Your task to perform on an android device: open wifi settings Image 0: 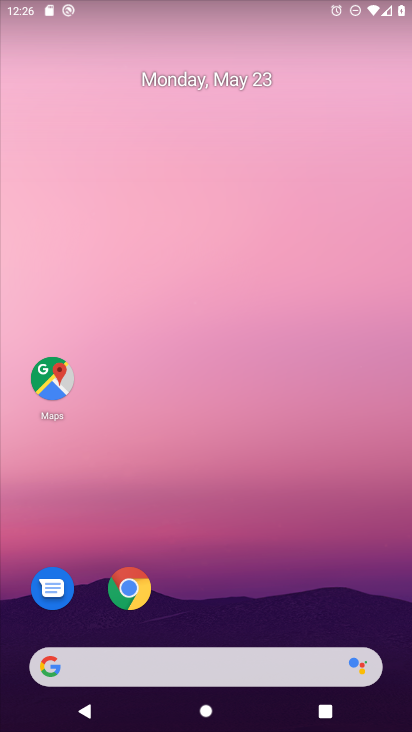
Step 0: drag from (268, 703) to (204, 305)
Your task to perform on an android device: open wifi settings Image 1: 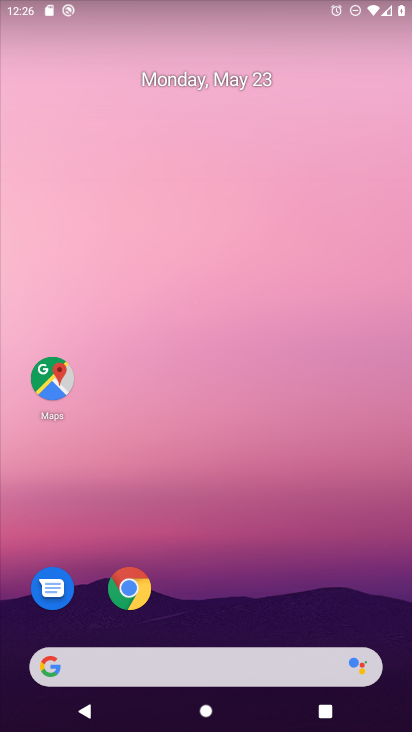
Step 1: drag from (247, 677) to (349, 77)
Your task to perform on an android device: open wifi settings Image 2: 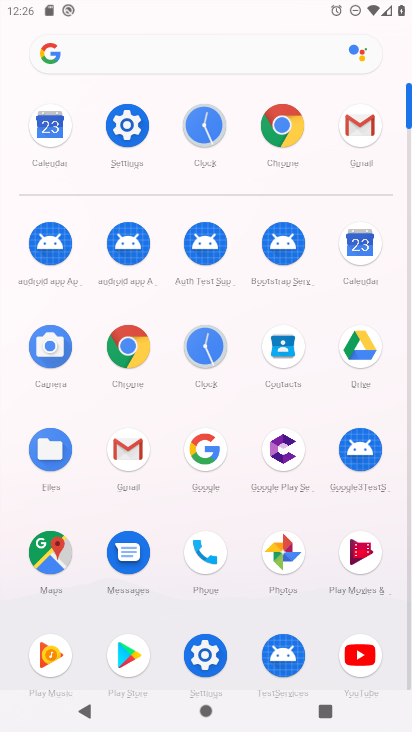
Step 2: click (125, 143)
Your task to perform on an android device: open wifi settings Image 3: 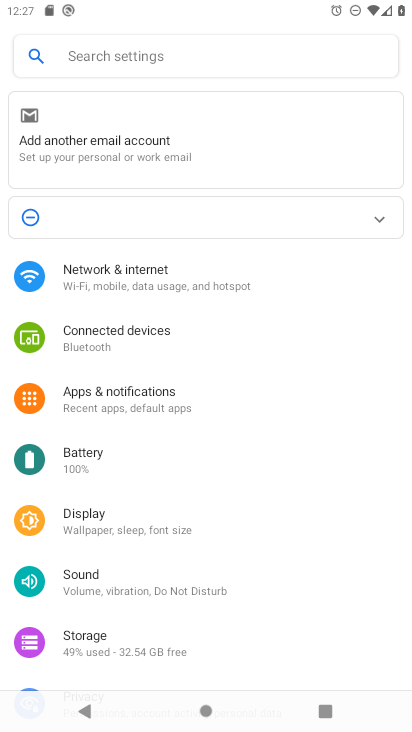
Step 3: click (159, 293)
Your task to perform on an android device: open wifi settings Image 4: 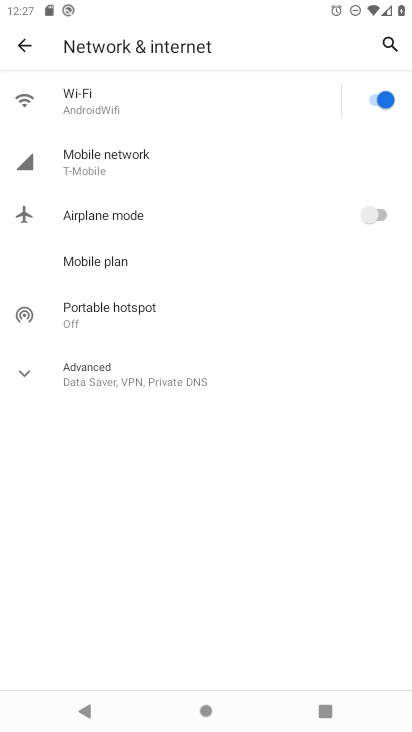
Step 4: click (202, 110)
Your task to perform on an android device: open wifi settings Image 5: 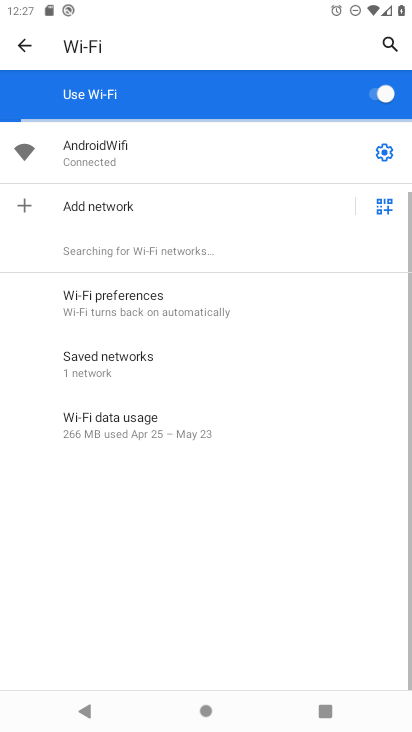
Step 5: task complete